Your task to perform on an android device: open wifi settings Image 0: 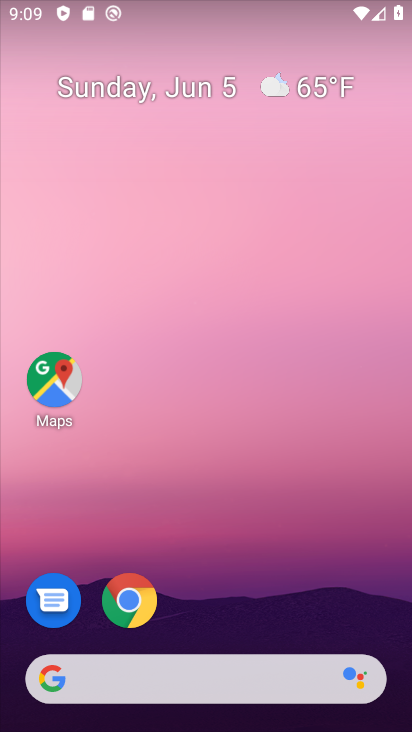
Step 0: drag from (279, 561) to (209, 143)
Your task to perform on an android device: open wifi settings Image 1: 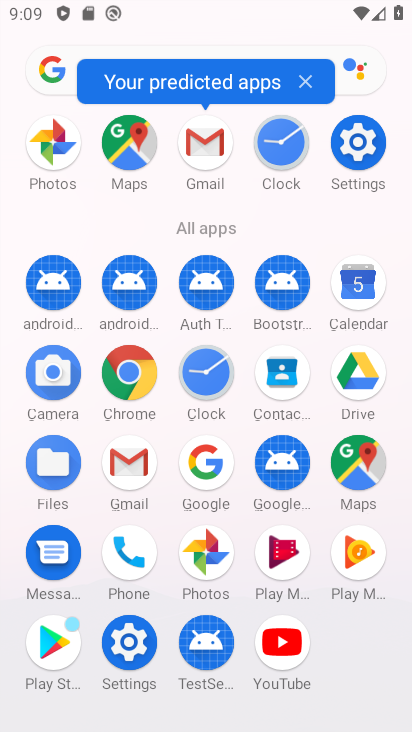
Step 1: click (362, 136)
Your task to perform on an android device: open wifi settings Image 2: 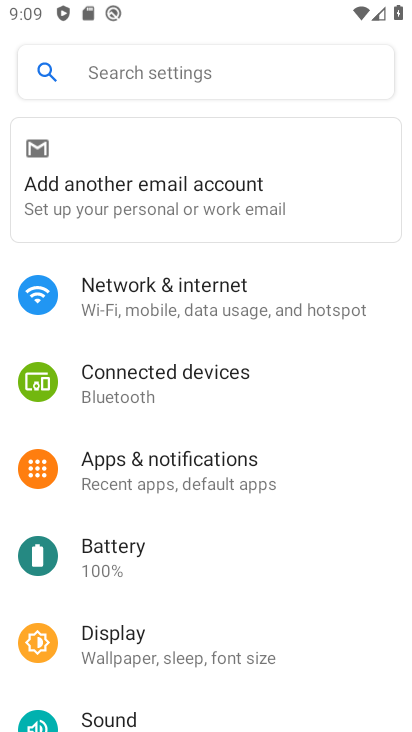
Step 2: click (123, 297)
Your task to perform on an android device: open wifi settings Image 3: 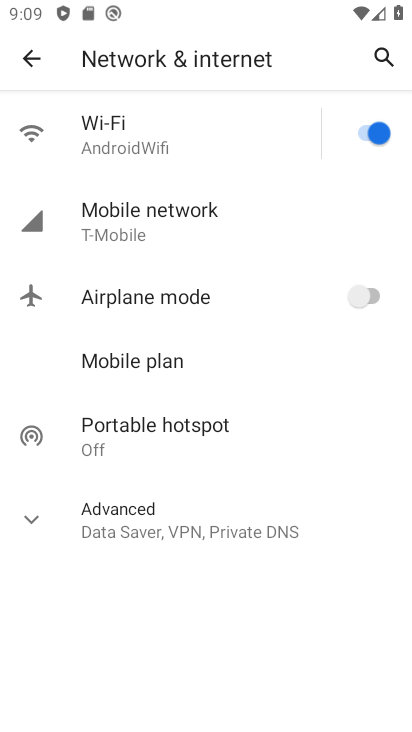
Step 3: click (124, 135)
Your task to perform on an android device: open wifi settings Image 4: 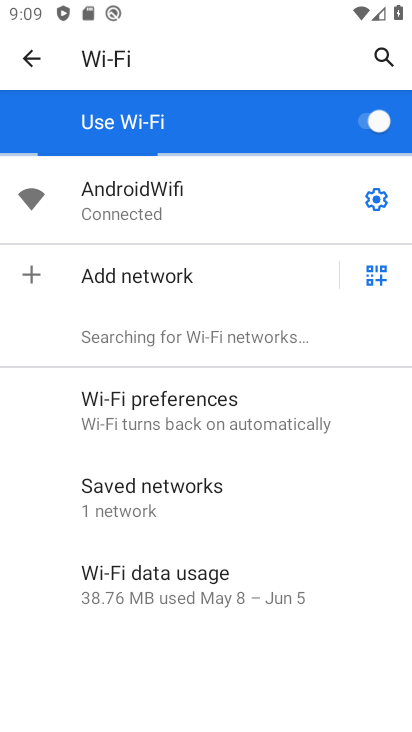
Step 4: click (385, 204)
Your task to perform on an android device: open wifi settings Image 5: 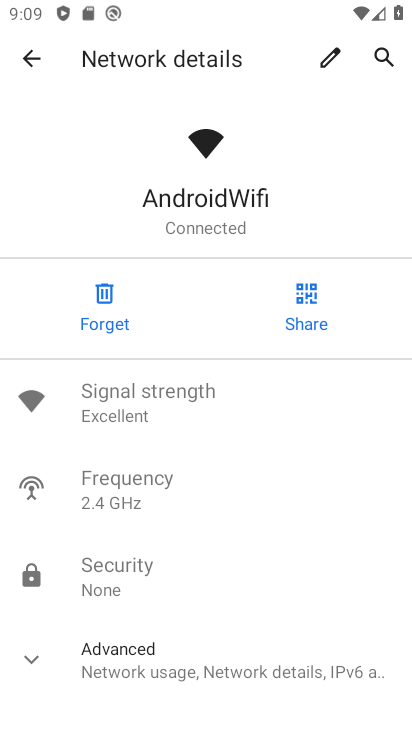
Step 5: task complete